Your task to perform on an android device: Go to Reddit.com Image 0: 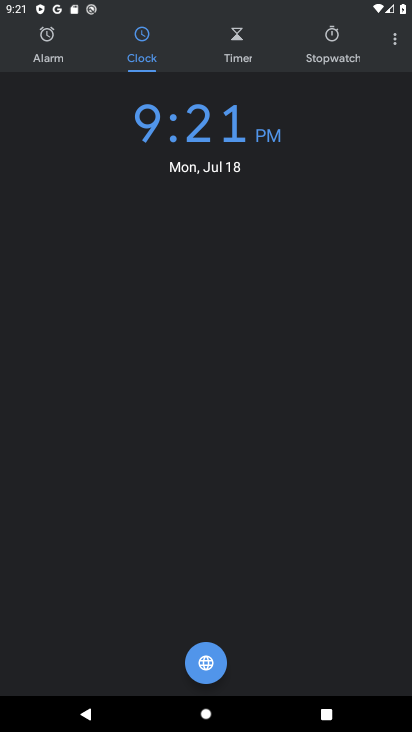
Step 0: press home button
Your task to perform on an android device: Go to Reddit.com Image 1: 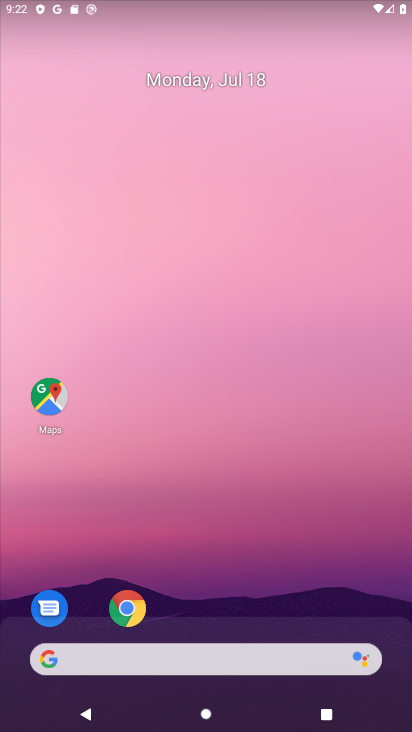
Step 1: drag from (186, 330) to (189, 196)
Your task to perform on an android device: Go to Reddit.com Image 2: 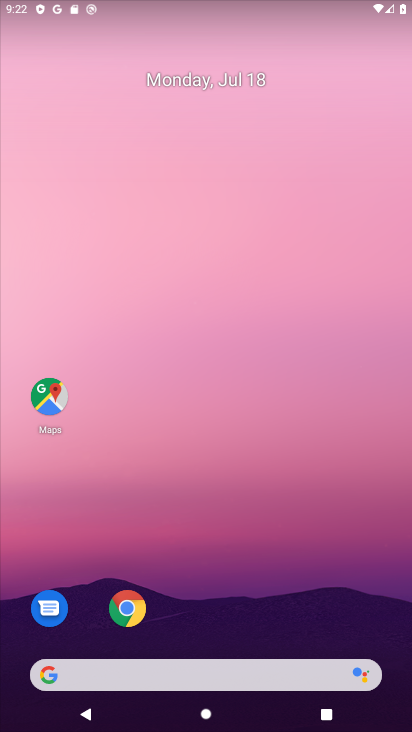
Step 2: drag from (187, 570) to (211, 69)
Your task to perform on an android device: Go to Reddit.com Image 3: 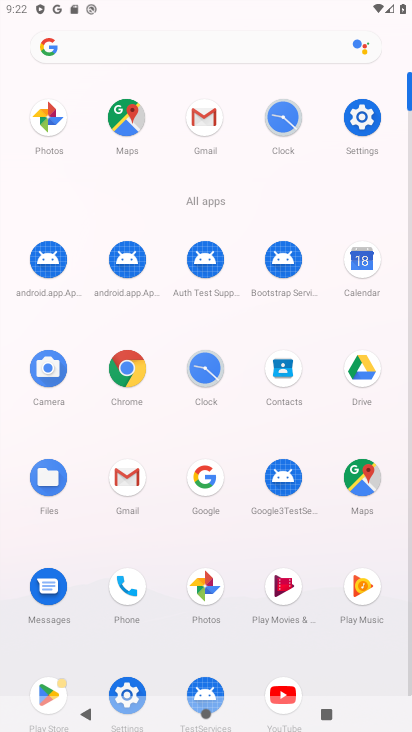
Step 3: click (129, 361)
Your task to perform on an android device: Go to Reddit.com Image 4: 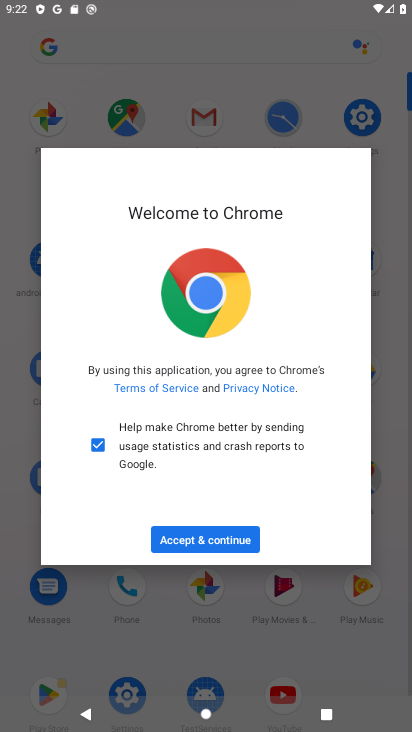
Step 4: click (188, 540)
Your task to perform on an android device: Go to Reddit.com Image 5: 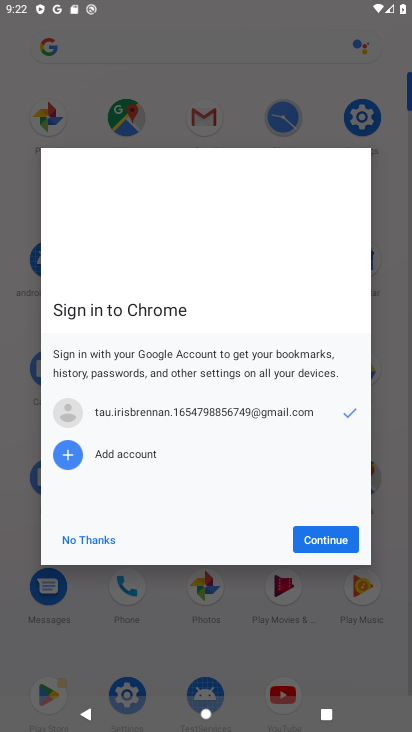
Step 5: click (305, 540)
Your task to perform on an android device: Go to Reddit.com Image 6: 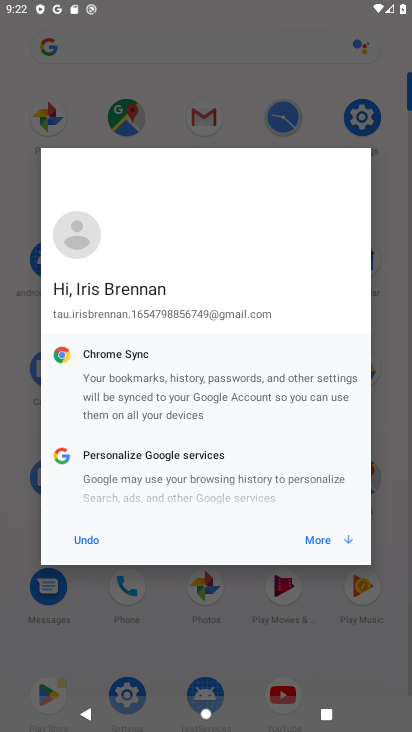
Step 6: click (305, 540)
Your task to perform on an android device: Go to Reddit.com Image 7: 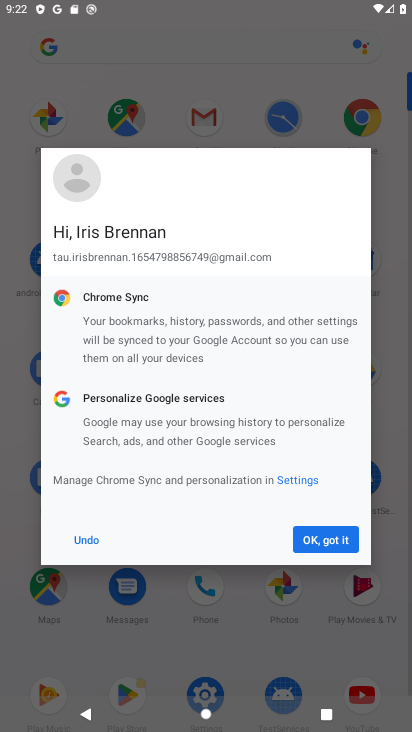
Step 7: click (305, 540)
Your task to perform on an android device: Go to Reddit.com Image 8: 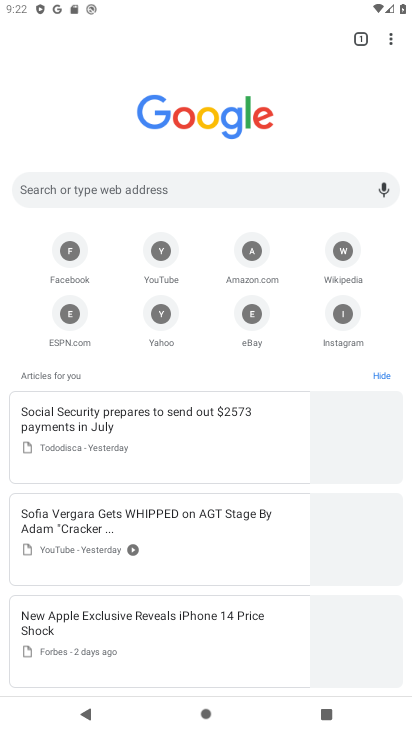
Step 8: click (78, 182)
Your task to perform on an android device: Go to Reddit.com Image 9: 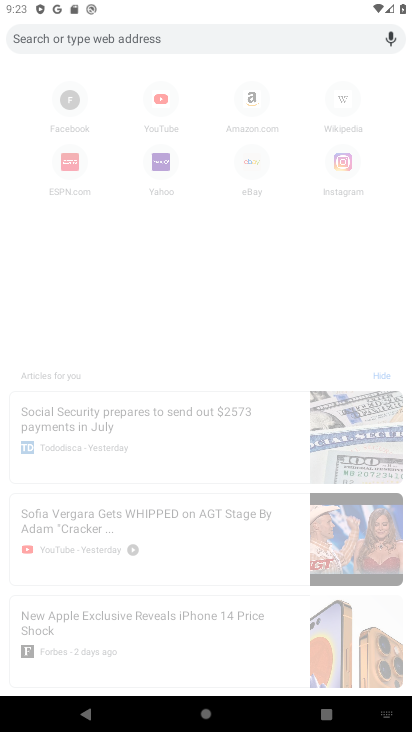
Step 9: type "www.reddit.com"
Your task to perform on an android device: Go to Reddit.com Image 10: 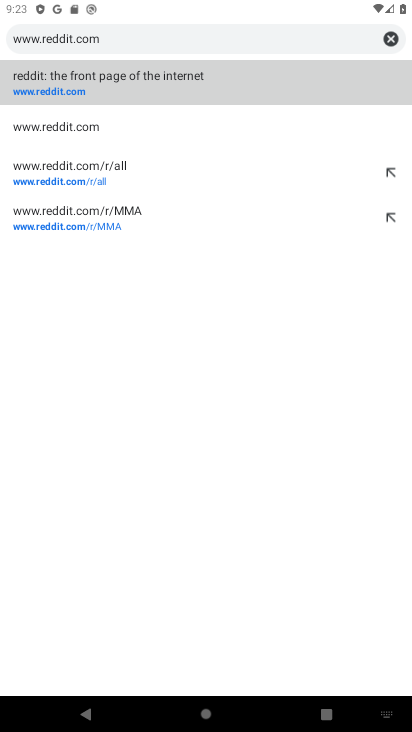
Step 10: click (43, 85)
Your task to perform on an android device: Go to Reddit.com Image 11: 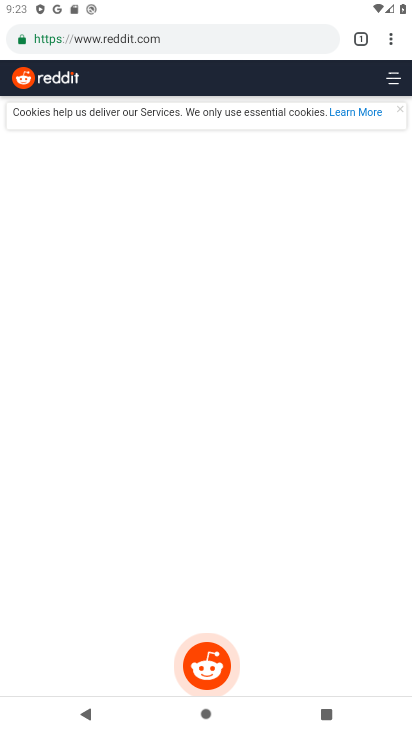
Step 11: task complete